Your task to perform on an android device: toggle wifi Image 0: 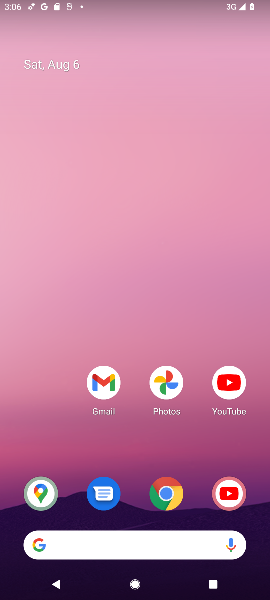
Step 0: drag from (127, 525) to (87, 199)
Your task to perform on an android device: toggle wifi Image 1: 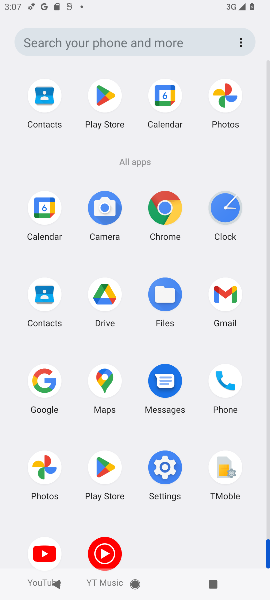
Step 1: click (168, 468)
Your task to perform on an android device: toggle wifi Image 2: 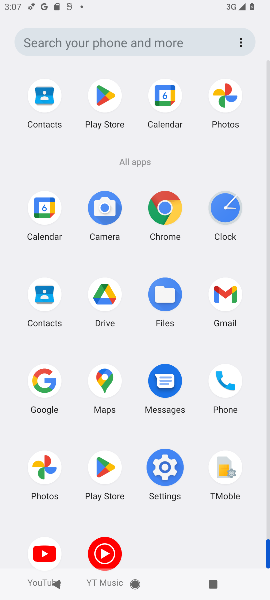
Step 2: click (166, 468)
Your task to perform on an android device: toggle wifi Image 3: 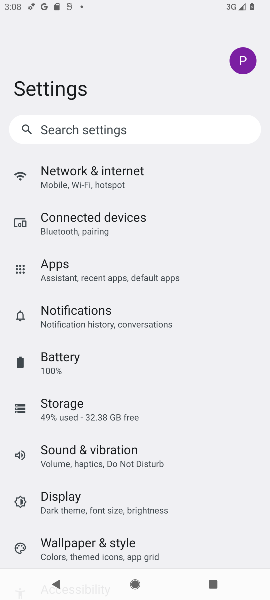
Step 3: click (59, 181)
Your task to perform on an android device: toggle wifi Image 4: 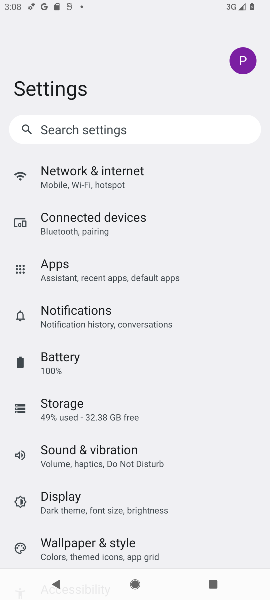
Step 4: click (59, 181)
Your task to perform on an android device: toggle wifi Image 5: 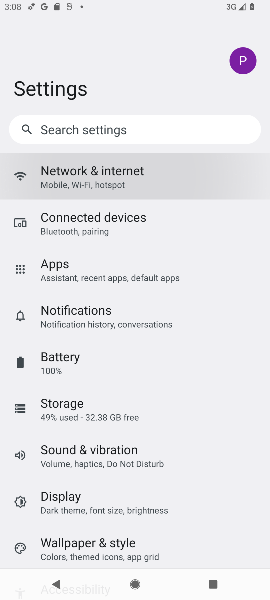
Step 5: click (59, 180)
Your task to perform on an android device: toggle wifi Image 6: 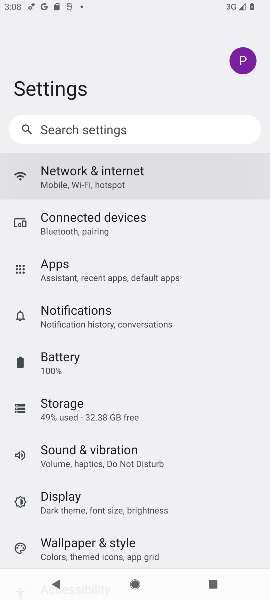
Step 6: click (59, 180)
Your task to perform on an android device: toggle wifi Image 7: 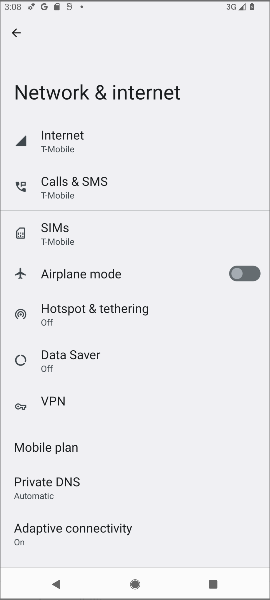
Step 7: click (59, 180)
Your task to perform on an android device: toggle wifi Image 8: 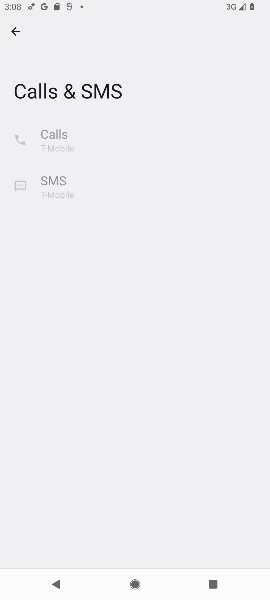
Step 8: click (18, 42)
Your task to perform on an android device: toggle wifi Image 9: 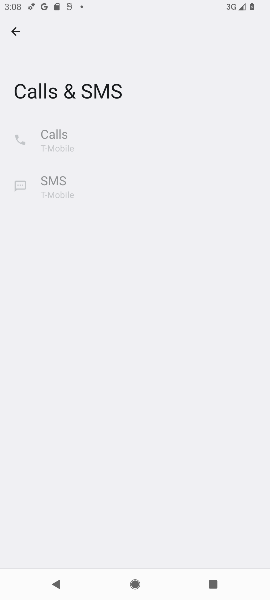
Step 9: click (10, 33)
Your task to perform on an android device: toggle wifi Image 10: 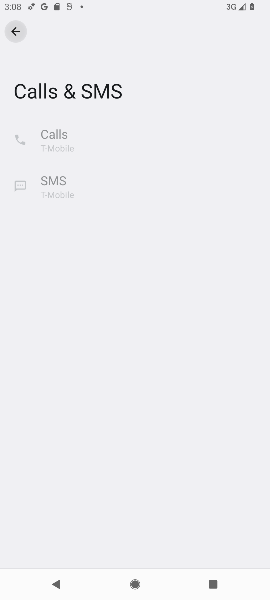
Step 10: click (10, 33)
Your task to perform on an android device: toggle wifi Image 11: 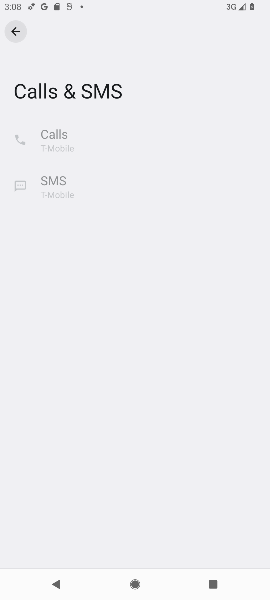
Step 11: click (10, 33)
Your task to perform on an android device: toggle wifi Image 12: 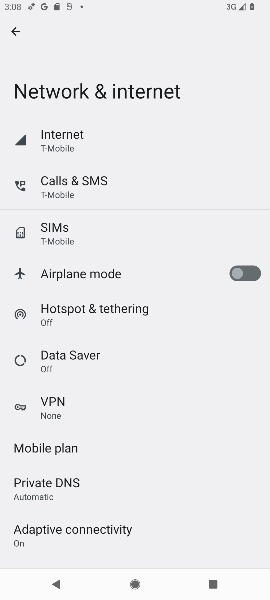
Step 12: click (14, 36)
Your task to perform on an android device: toggle wifi Image 13: 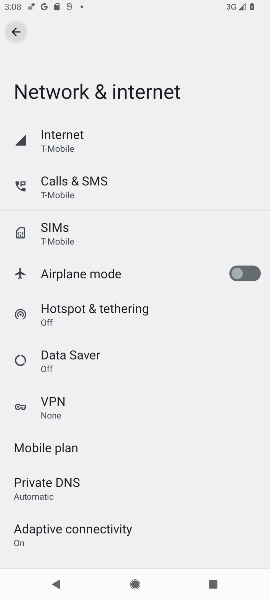
Step 13: click (61, 137)
Your task to perform on an android device: toggle wifi Image 14: 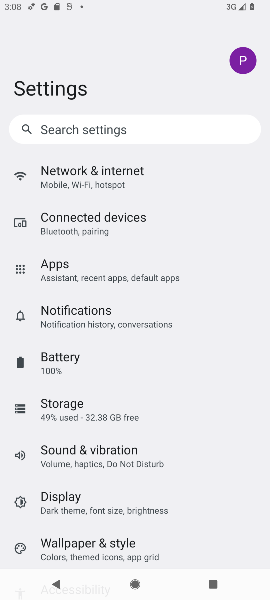
Step 14: click (61, 137)
Your task to perform on an android device: toggle wifi Image 15: 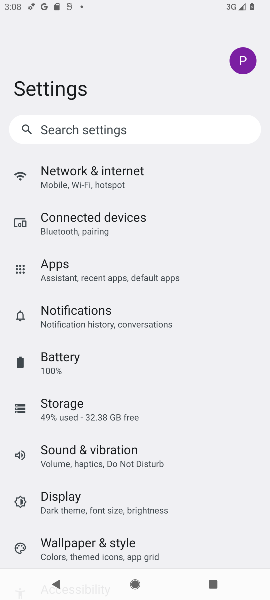
Step 15: click (61, 137)
Your task to perform on an android device: toggle wifi Image 16: 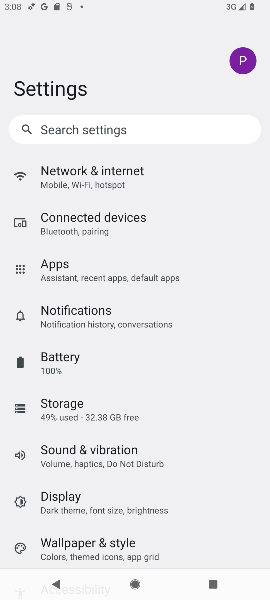
Step 16: click (61, 137)
Your task to perform on an android device: toggle wifi Image 17: 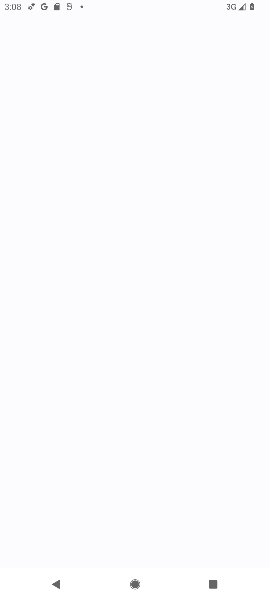
Step 17: click (77, 177)
Your task to perform on an android device: toggle wifi Image 18: 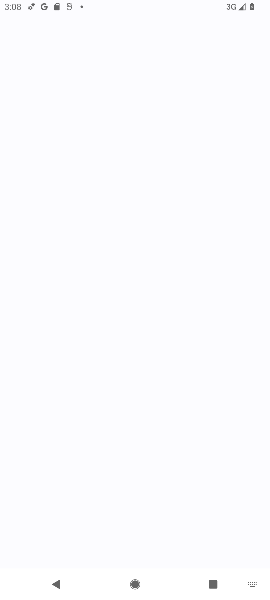
Step 18: click (77, 177)
Your task to perform on an android device: toggle wifi Image 19: 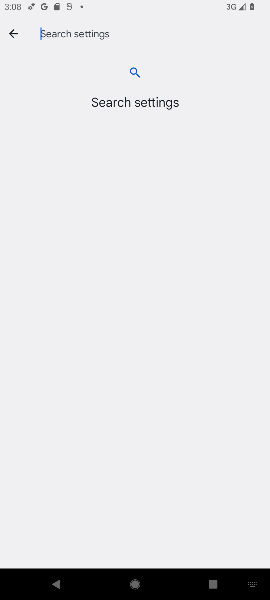
Step 19: click (15, 33)
Your task to perform on an android device: toggle wifi Image 20: 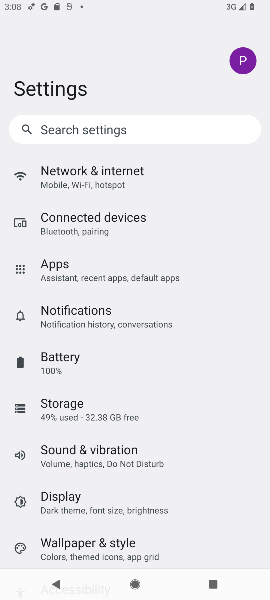
Step 20: click (90, 174)
Your task to perform on an android device: toggle wifi Image 21: 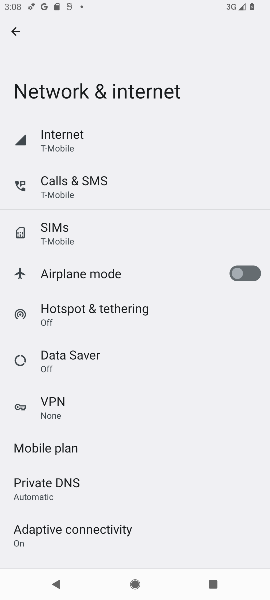
Step 21: click (57, 139)
Your task to perform on an android device: toggle wifi Image 22: 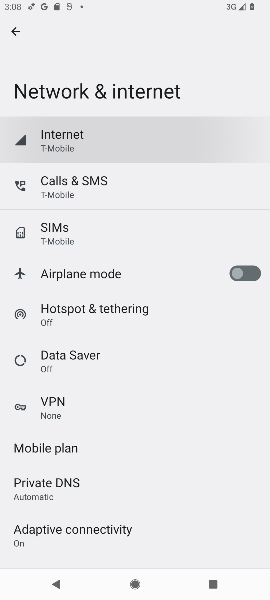
Step 22: click (56, 137)
Your task to perform on an android device: toggle wifi Image 23: 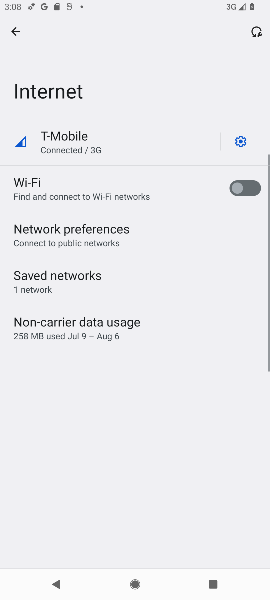
Step 23: click (239, 183)
Your task to perform on an android device: toggle wifi Image 24: 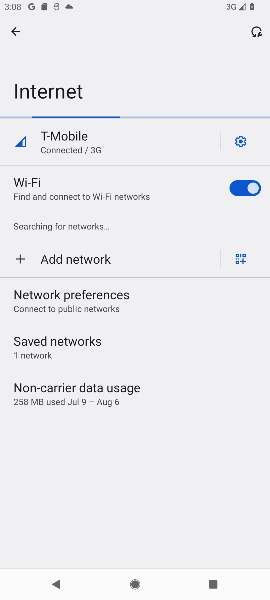
Step 24: task complete